Your task to perform on an android device: move an email to a new category in the gmail app Image 0: 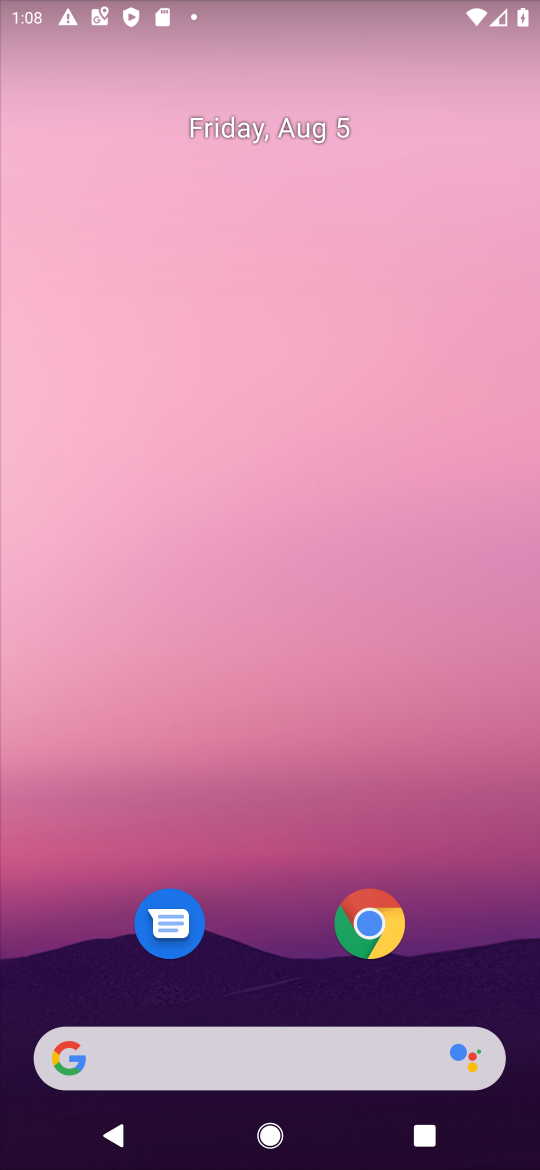
Step 0: drag from (299, 966) to (260, 146)
Your task to perform on an android device: move an email to a new category in the gmail app Image 1: 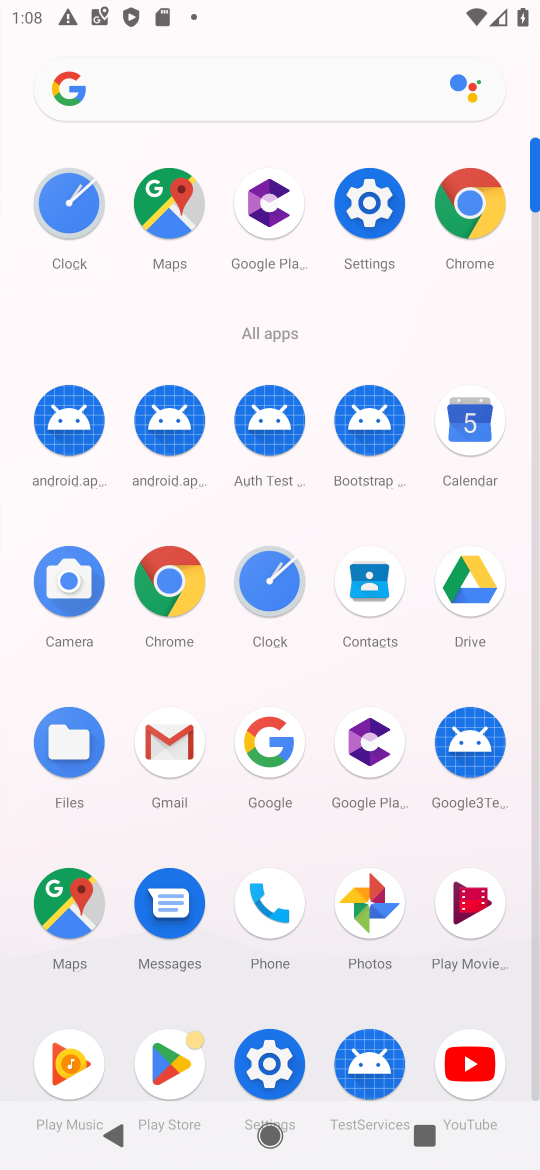
Step 1: click (150, 729)
Your task to perform on an android device: move an email to a new category in the gmail app Image 2: 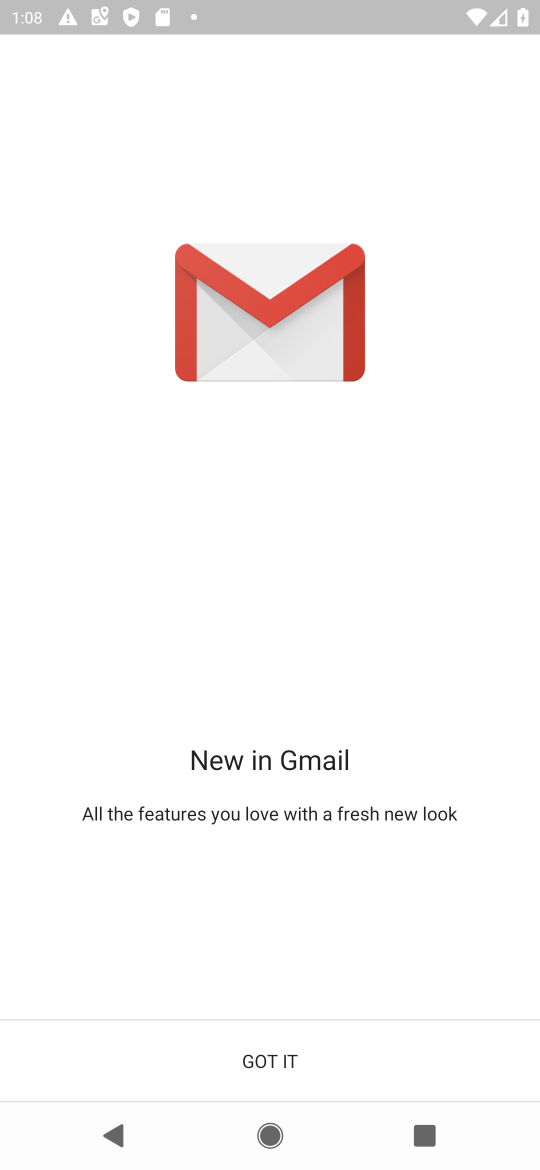
Step 2: click (316, 1071)
Your task to perform on an android device: move an email to a new category in the gmail app Image 3: 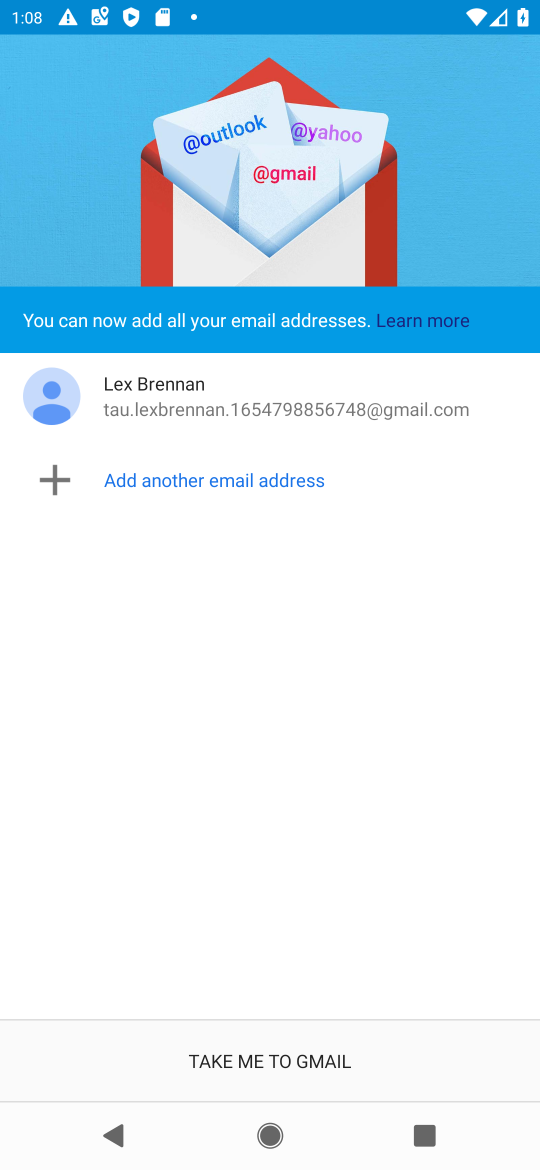
Step 3: click (316, 1071)
Your task to perform on an android device: move an email to a new category in the gmail app Image 4: 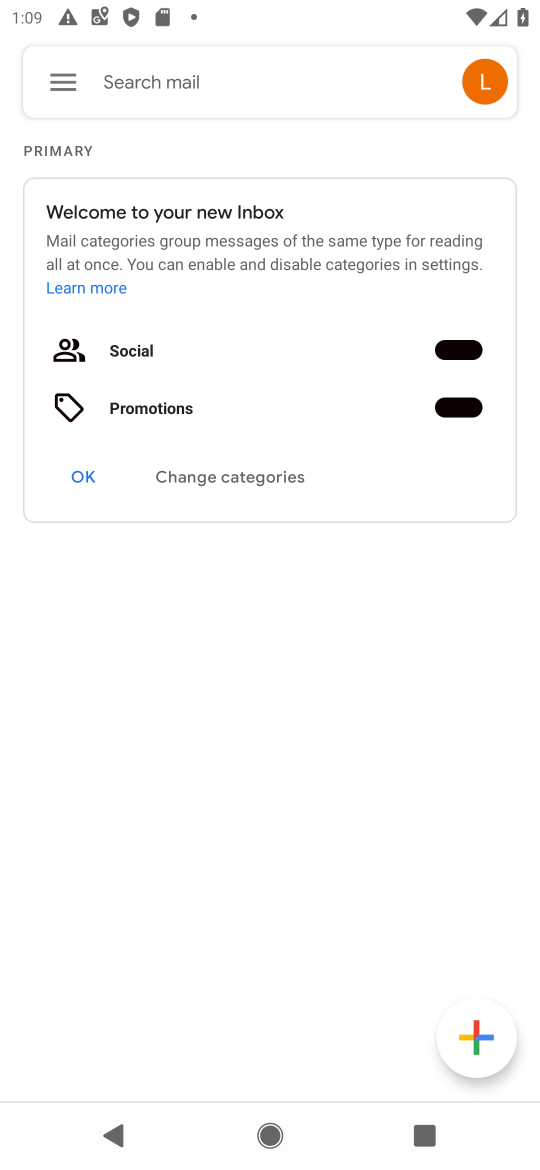
Step 4: press home button
Your task to perform on an android device: move an email to a new category in the gmail app Image 5: 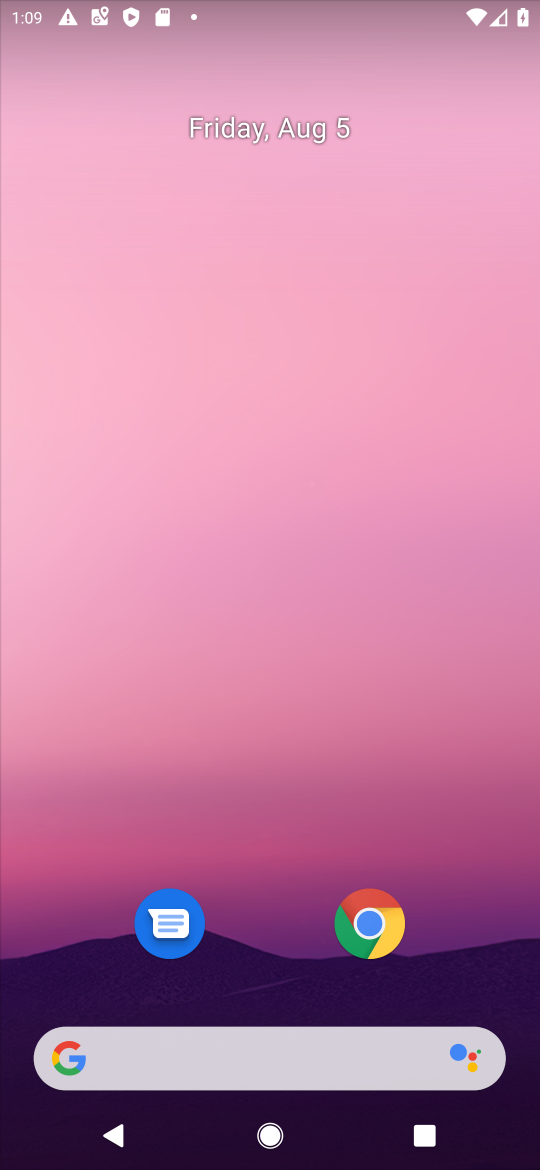
Step 5: drag from (256, 999) to (117, 7)
Your task to perform on an android device: move an email to a new category in the gmail app Image 6: 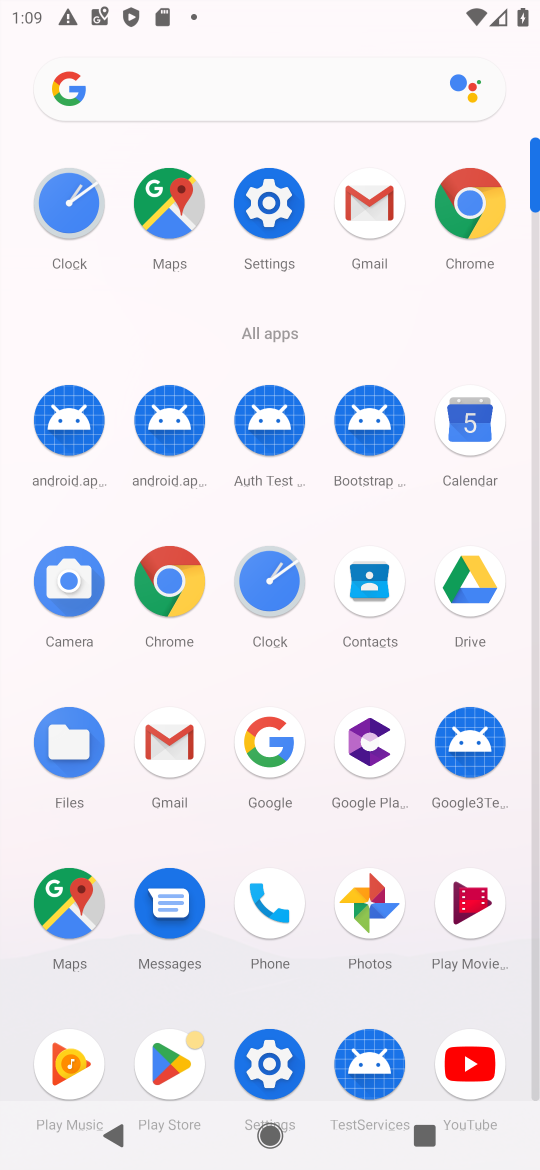
Step 6: click (371, 228)
Your task to perform on an android device: move an email to a new category in the gmail app Image 7: 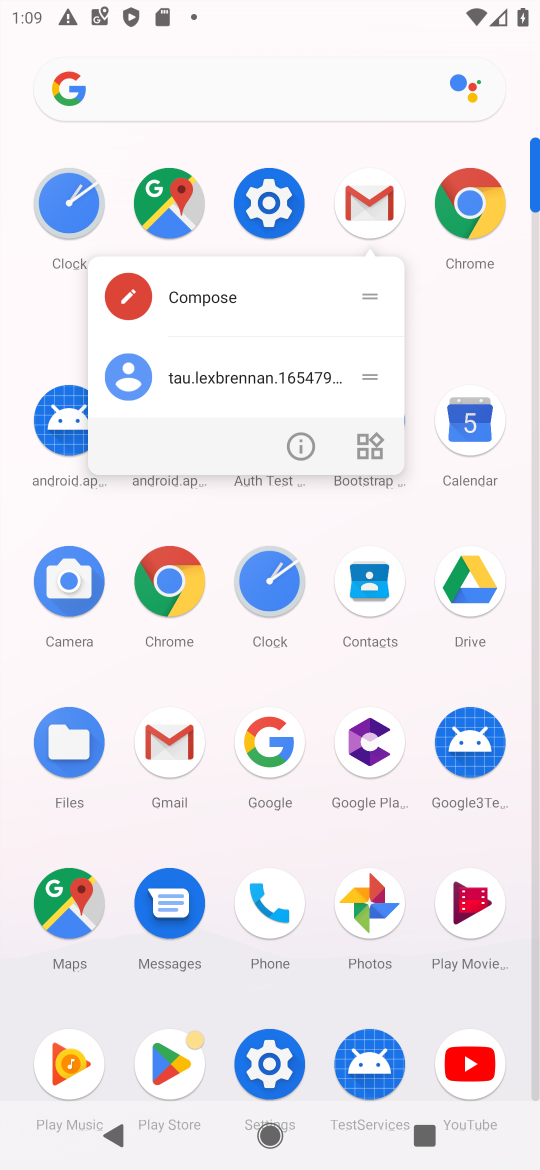
Step 7: click (368, 202)
Your task to perform on an android device: move an email to a new category in the gmail app Image 8: 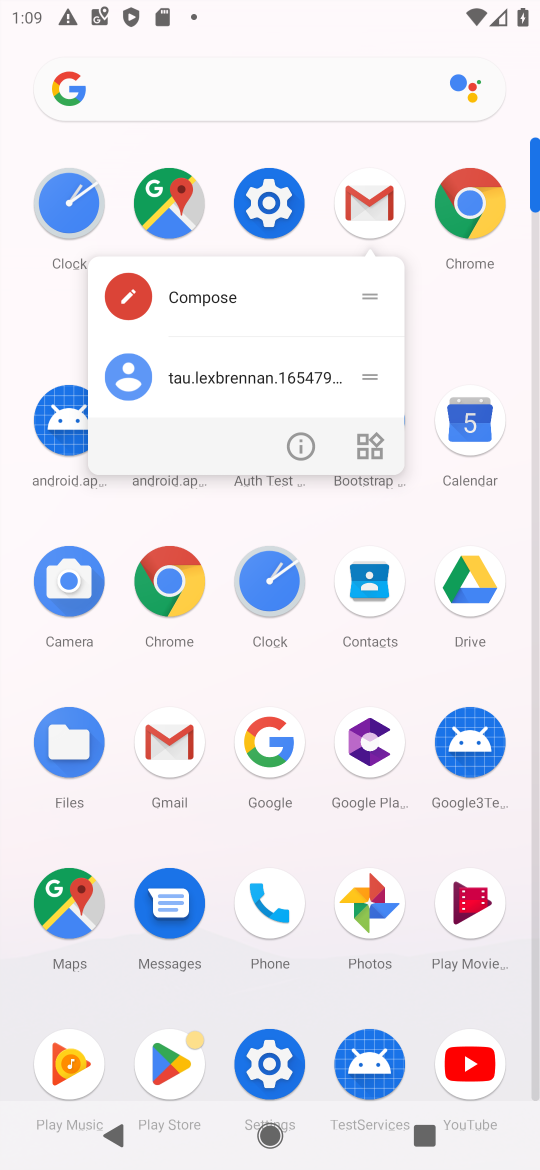
Step 8: click (367, 199)
Your task to perform on an android device: move an email to a new category in the gmail app Image 9: 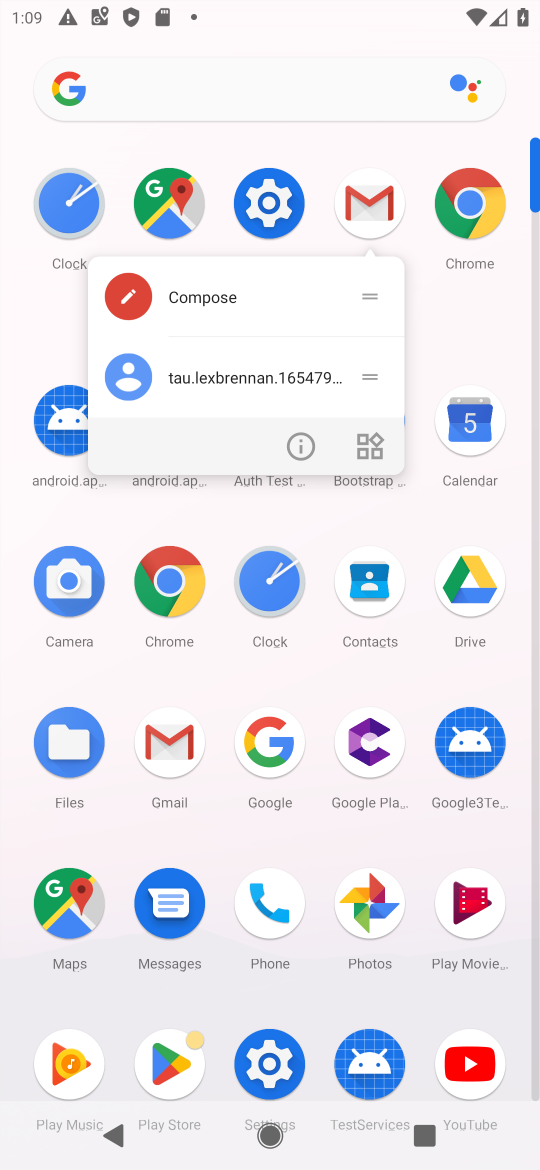
Step 9: click (349, 208)
Your task to perform on an android device: move an email to a new category in the gmail app Image 10: 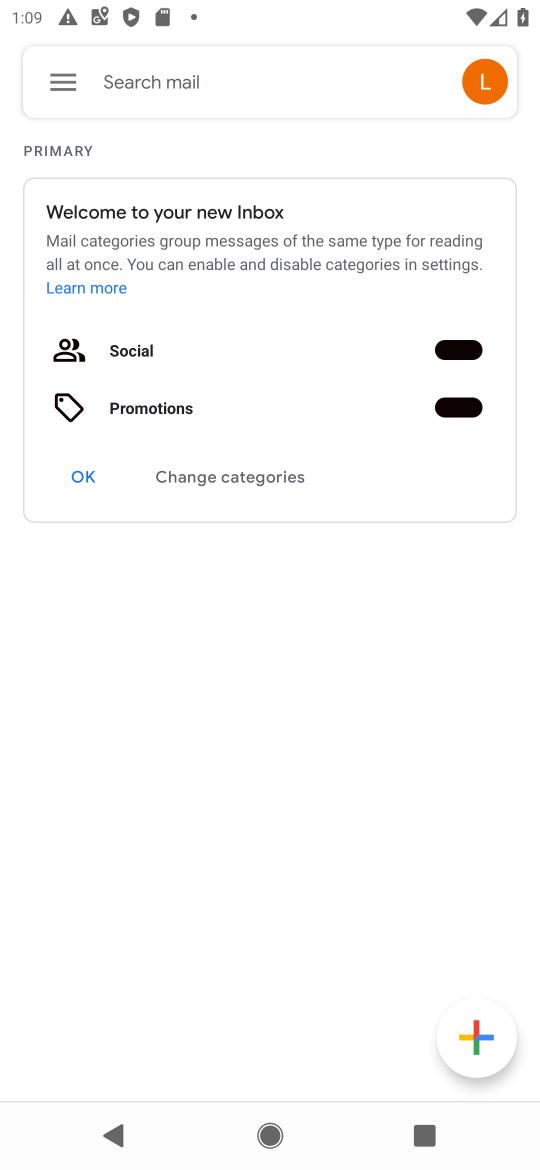
Step 10: click (69, 468)
Your task to perform on an android device: move an email to a new category in the gmail app Image 11: 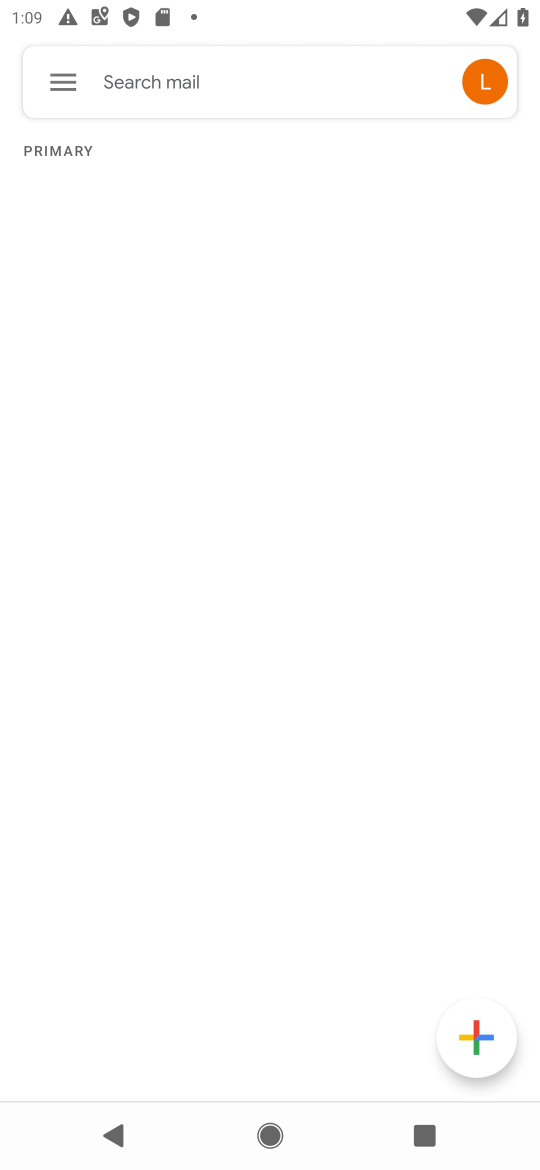
Step 11: task complete